Your task to perform on an android device: stop showing notifications on the lock screen Image 0: 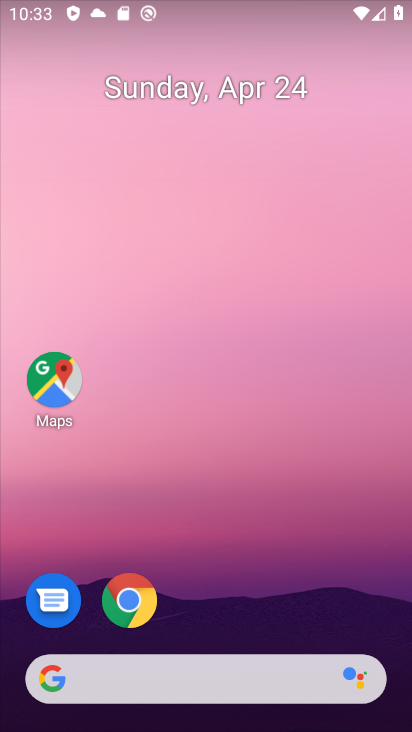
Step 0: drag from (250, 607) to (260, 16)
Your task to perform on an android device: stop showing notifications on the lock screen Image 1: 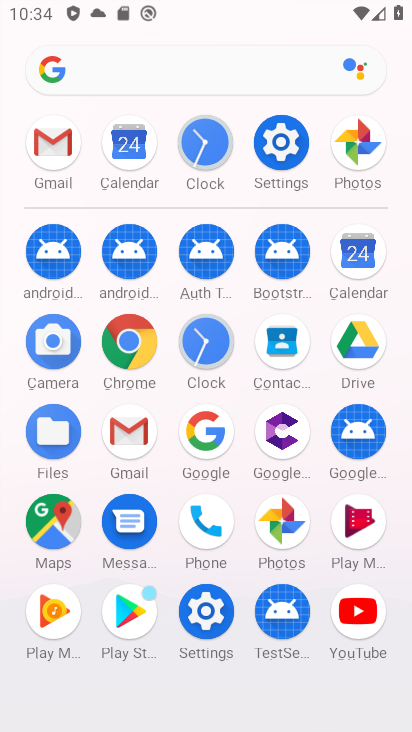
Step 1: click (282, 143)
Your task to perform on an android device: stop showing notifications on the lock screen Image 2: 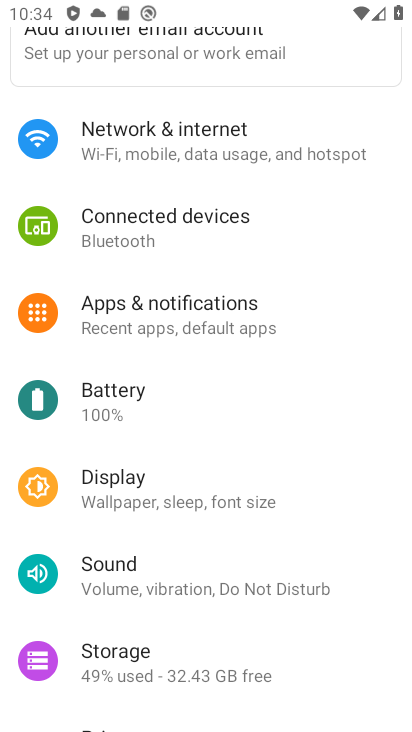
Step 2: click (176, 305)
Your task to perform on an android device: stop showing notifications on the lock screen Image 3: 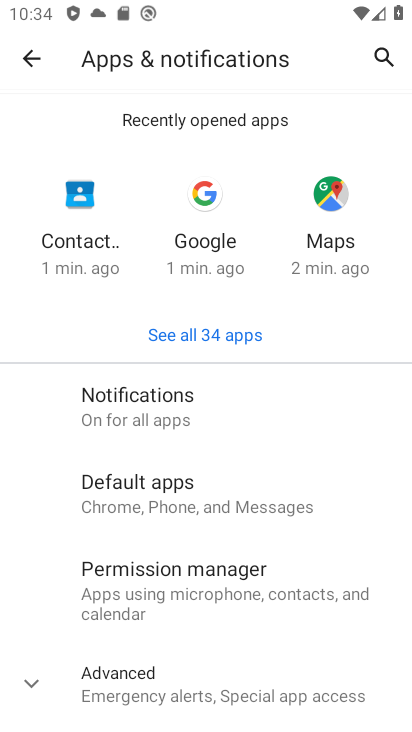
Step 3: click (120, 390)
Your task to perform on an android device: stop showing notifications on the lock screen Image 4: 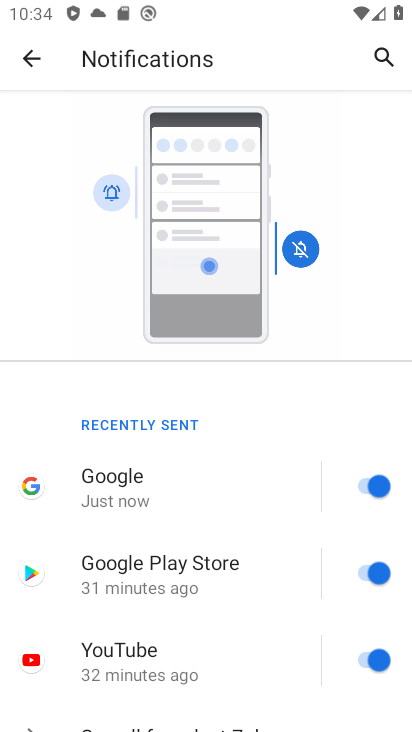
Step 4: drag from (256, 528) to (249, 209)
Your task to perform on an android device: stop showing notifications on the lock screen Image 5: 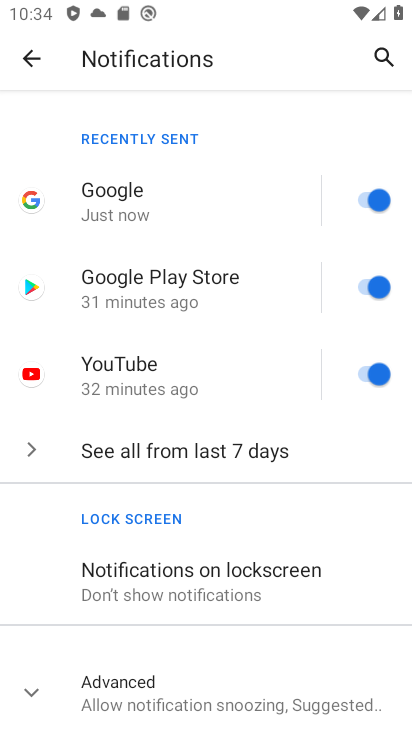
Step 5: click (228, 566)
Your task to perform on an android device: stop showing notifications on the lock screen Image 6: 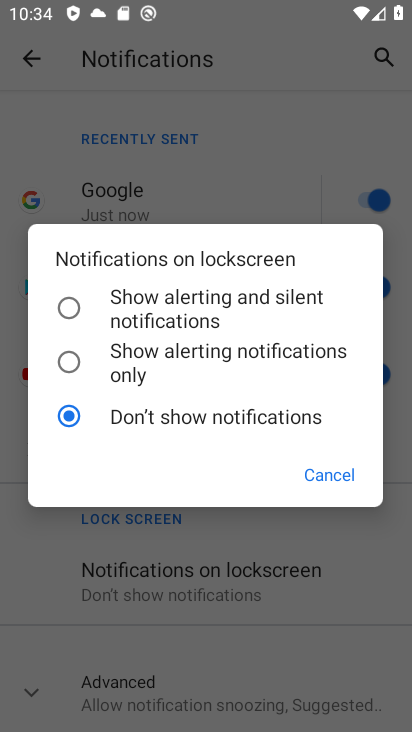
Step 6: task complete